Your task to perform on an android device: Search for hotels in Atlanta Image 0: 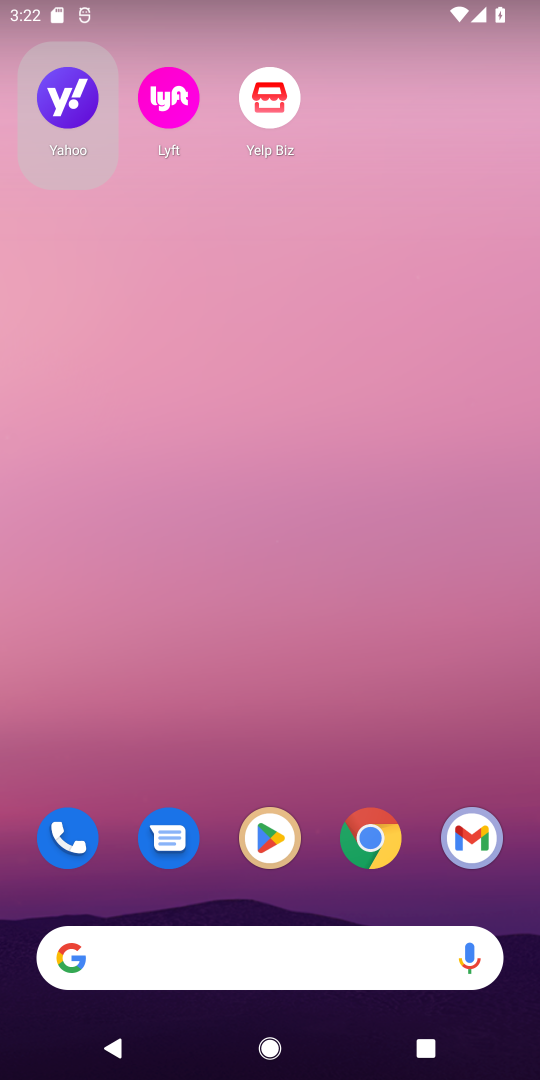
Step 0: click (383, 853)
Your task to perform on an android device: Search for hotels in Atlanta Image 1: 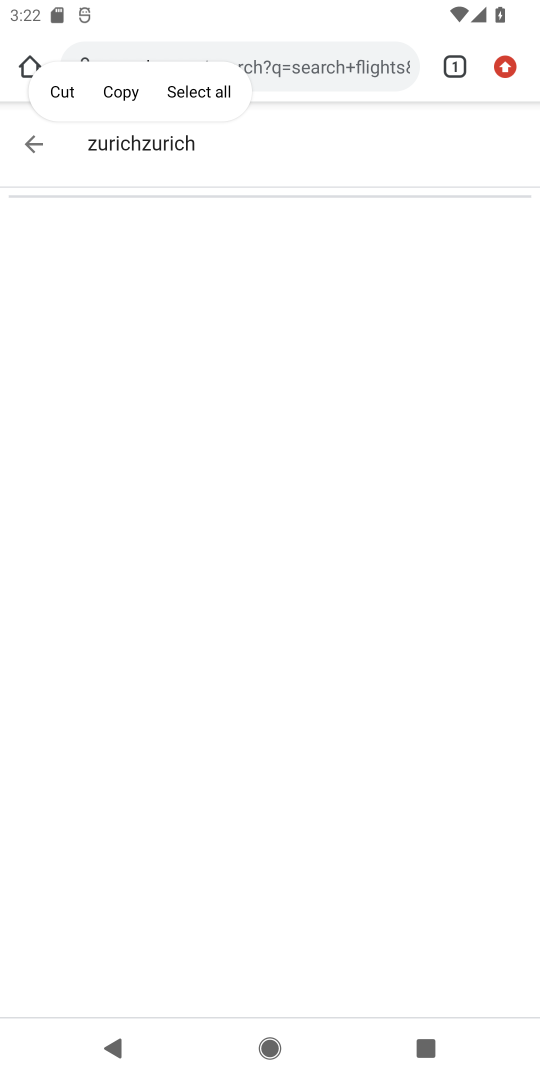
Step 1: click (321, 69)
Your task to perform on an android device: Search for hotels in Atlanta Image 2: 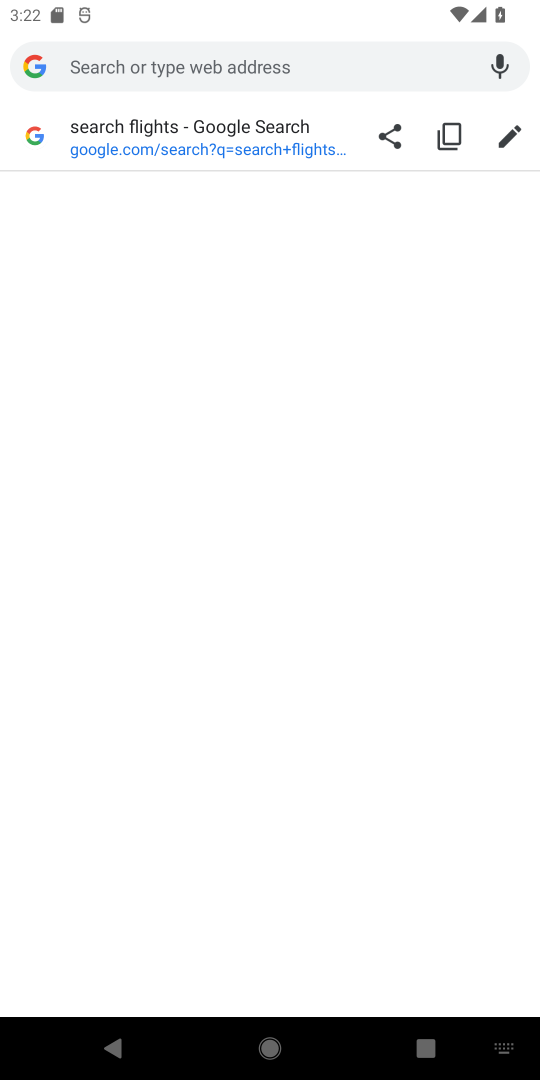
Step 2: type "hotels in atlanta"
Your task to perform on an android device: Search for hotels in Atlanta Image 3: 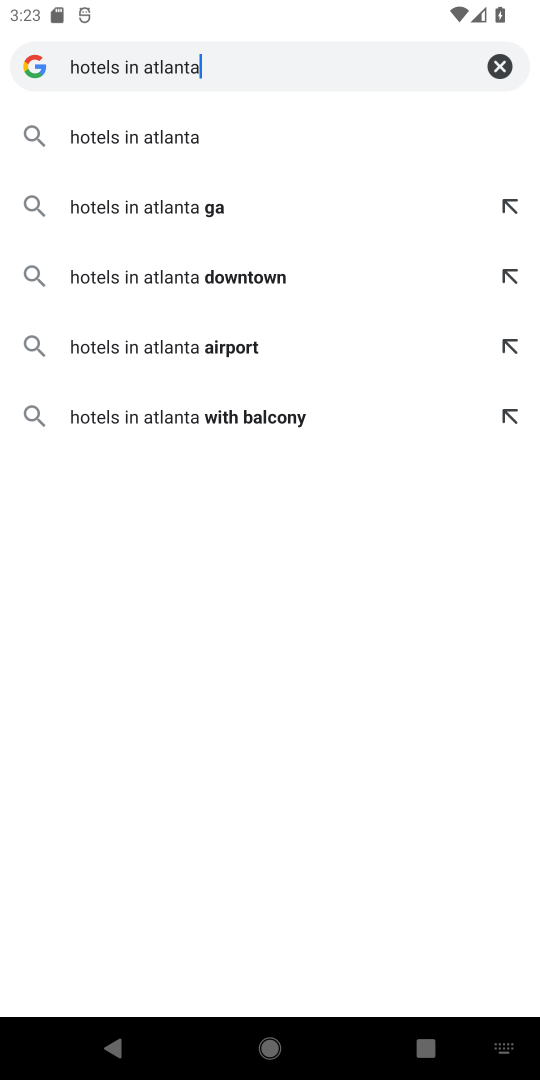
Step 3: click (164, 133)
Your task to perform on an android device: Search for hotels in Atlanta Image 4: 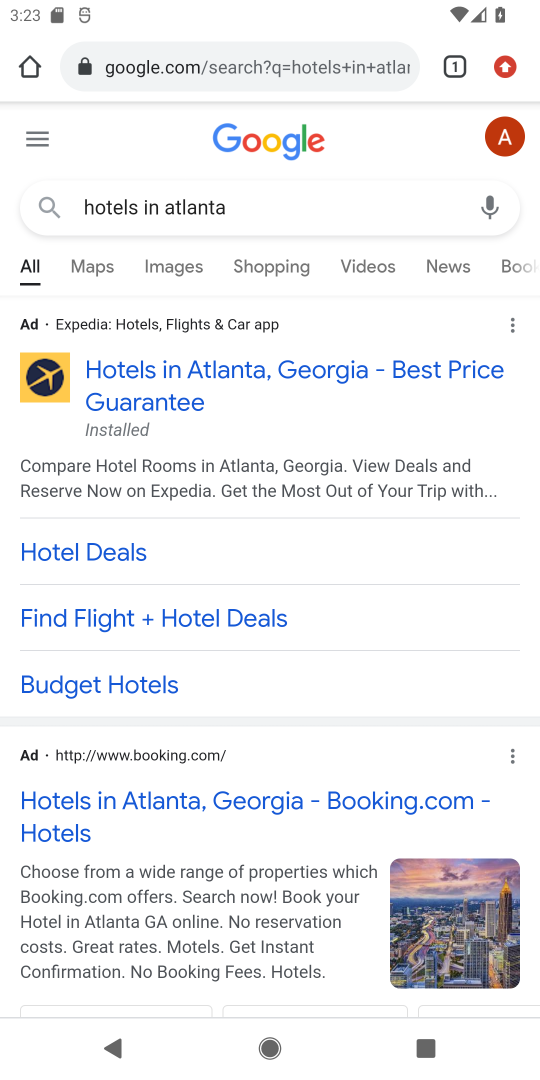
Step 4: click (137, 799)
Your task to perform on an android device: Search for hotels in Atlanta Image 5: 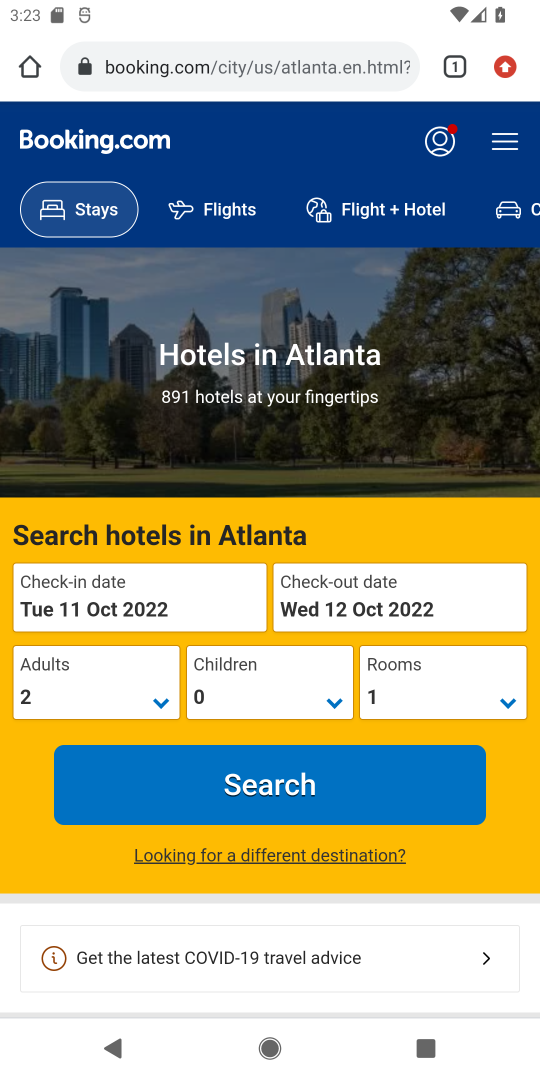
Step 5: drag from (109, 564) to (213, 249)
Your task to perform on an android device: Search for hotels in Atlanta Image 6: 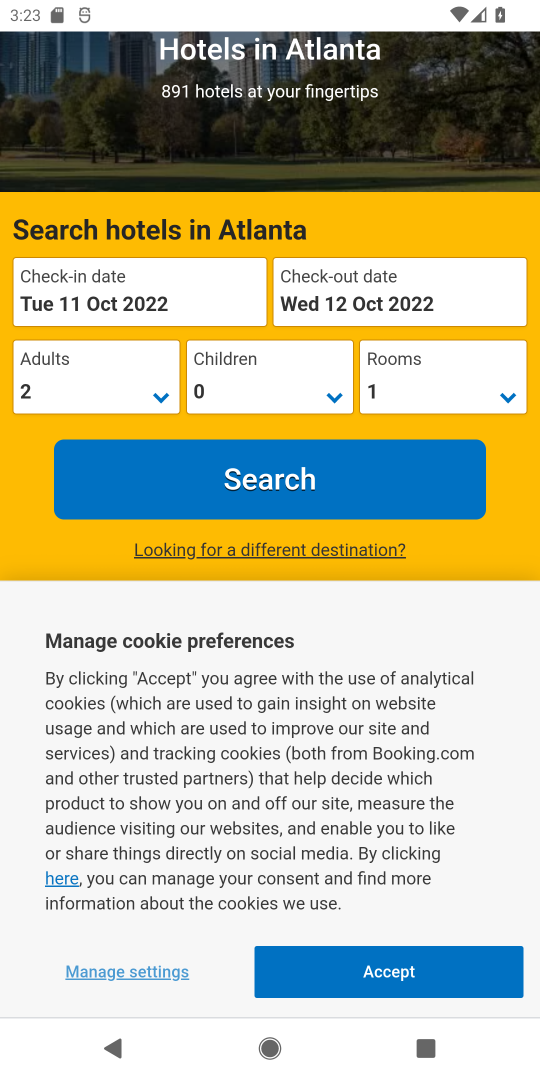
Step 6: click (323, 503)
Your task to perform on an android device: Search for hotels in Atlanta Image 7: 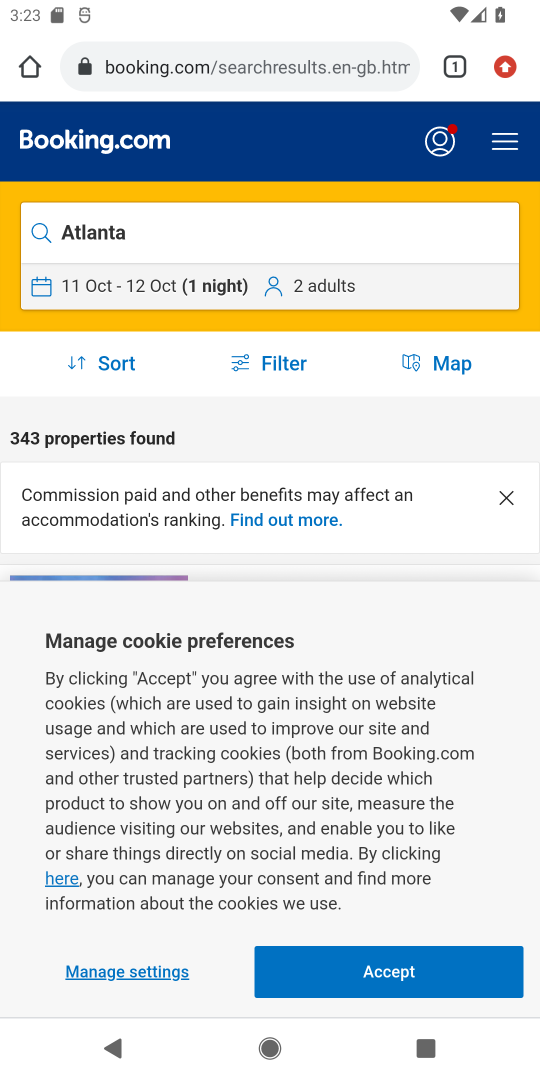
Step 7: click (327, 970)
Your task to perform on an android device: Search for hotels in Atlanta Image 8: 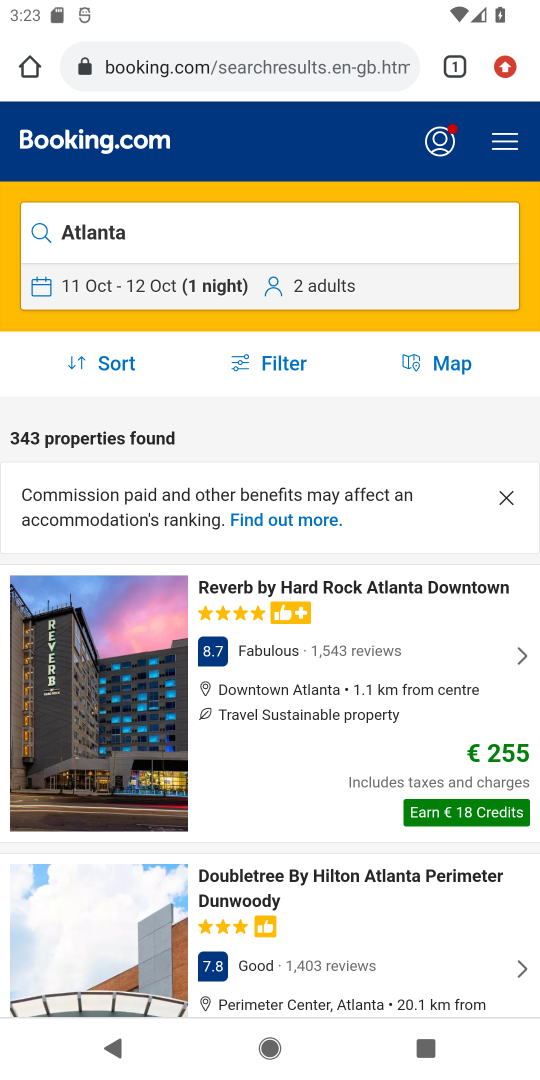
Step 8: task complete